Your task to perform on an android device: When is my next meeting? Image 0: 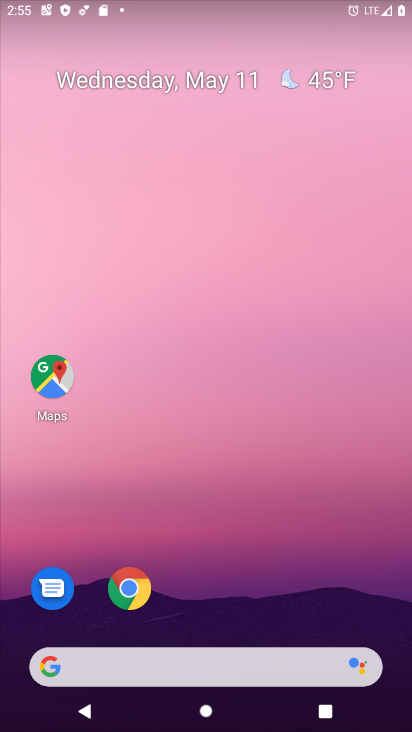
Step 0: drag from (192, 637) to (191, 229)
Your task to perform on an android device: When is my next meeting? Image 1: 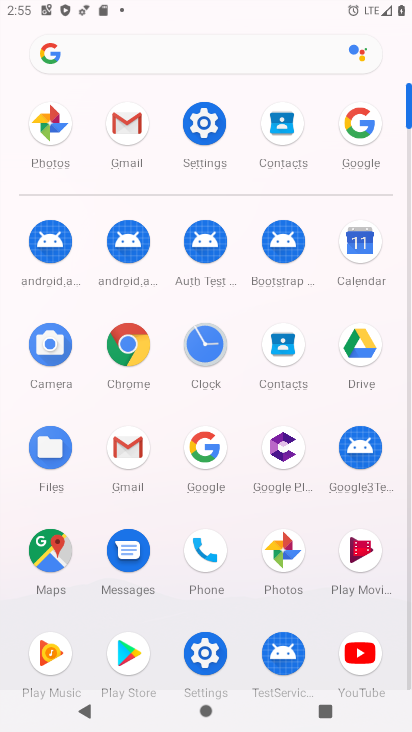
Step 1: click (350, 258)
Your task to perform on an android device: When is my next meeting? Image 2: 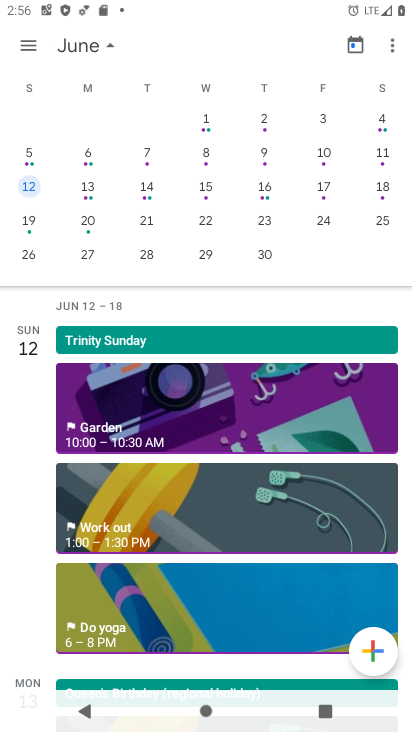
Step 2: drag from (223, 525) to (227, 330)
Your task to perform on an android device: When is my next meeting? Image 3: 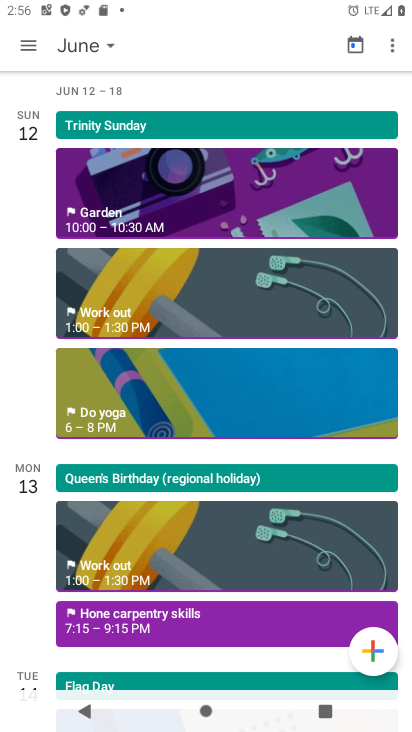
Step 3: drag from (213, 576) to (211, 382)
Your task to perform on an android device: When is my next meeting? Image 4: 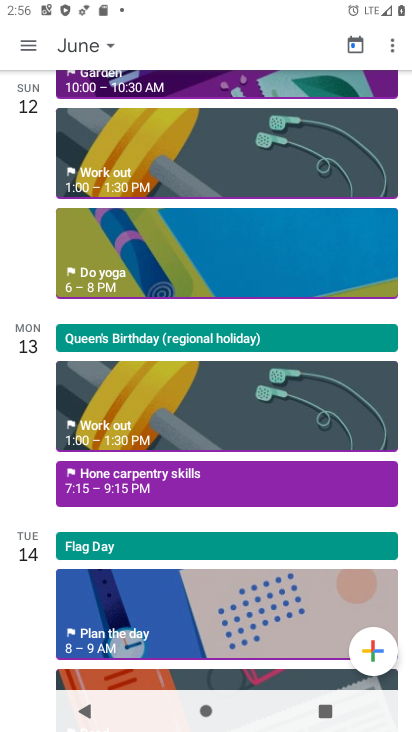
Step 4: drag from (192, 545) to (211, 304)
Your task to perform on an android device: When is my next meeting? Image 5: 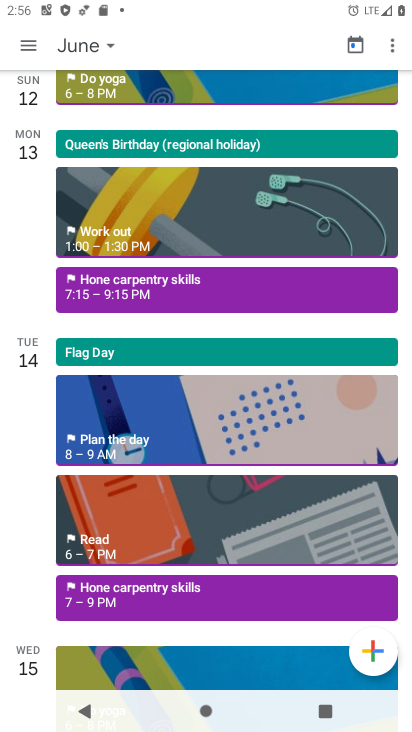
Step 5: drag from (197, 605) to (195, 342)
Your task to perform on an android device: When is my next meeting? Image 6: 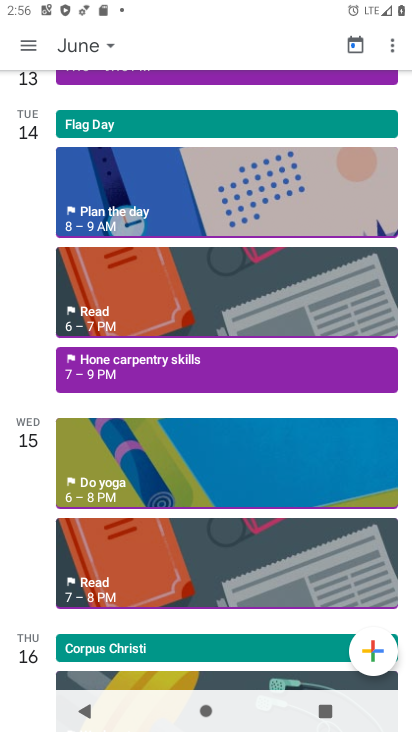
Step 6: drag from (194, 588) to (202, 367)
Your task to perform on an android device: When is my next meeting? Image 7: 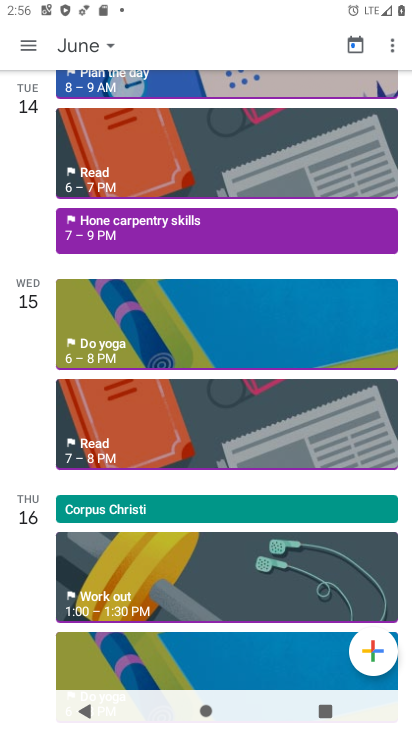
Step 7: drag from (207, 603) to (212, 340)
Your task to perform on an android device: When is my next meeting? Image 8: 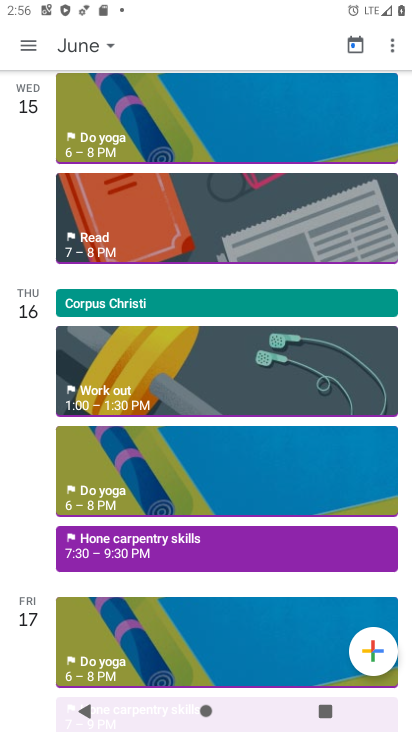
Step 8: drag from (200, 615) to (201, 336)
Your task to perform on an android device: When is my next meeting? Image 9: 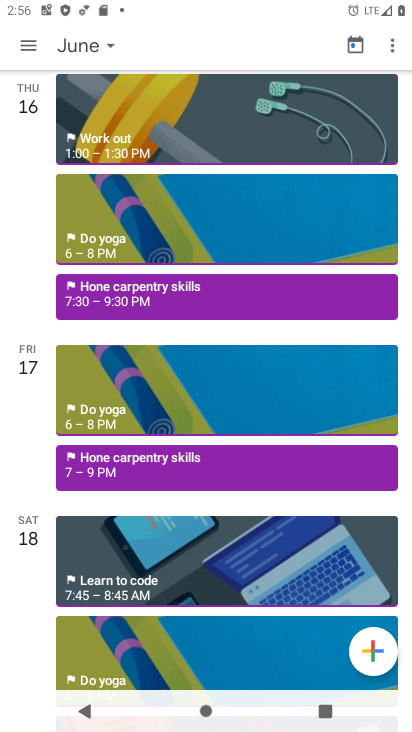
Step 9: drag from (188, 554) to (194, 309)
Your task to perform on an android device: When is my next meeting? Image 10: 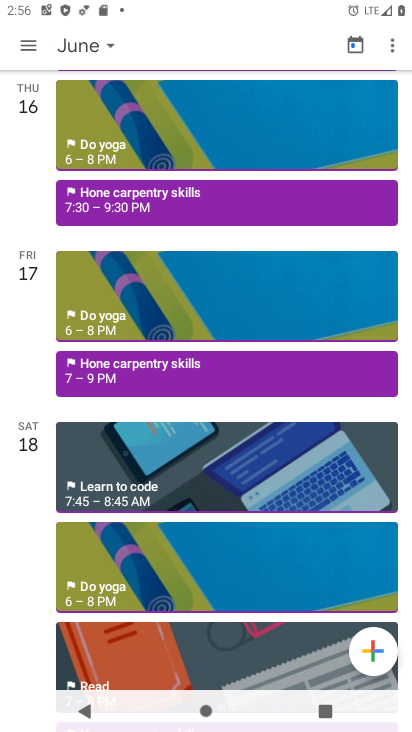
Step 10: drag from (182, 582) to (182, 330)
Your task to perform on an android device: When is my next meeting? Image 11: 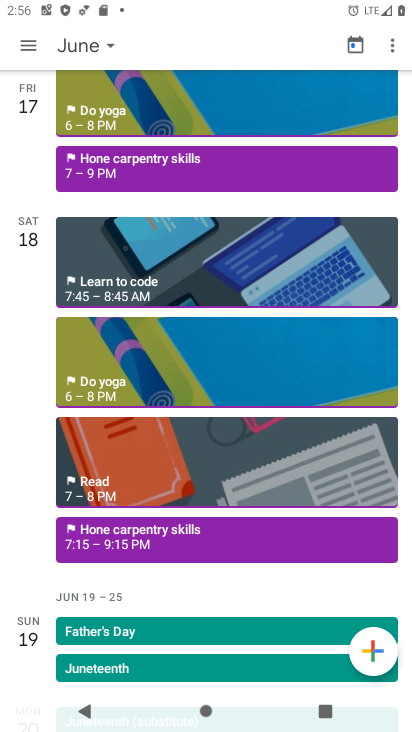
Step 11: drag from (191, 619) to (190, 332)
Your task to perform on an android device: When is my next meeting? Image 12: 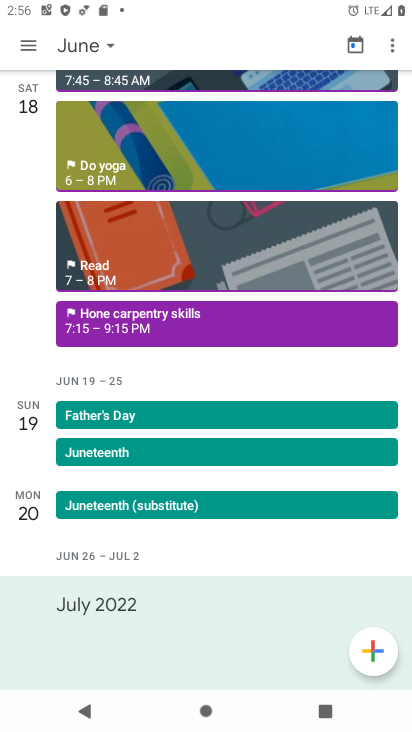
Step 12: drag from (189, 606) to (199, 269)
Your task to perform on an android device: When is my next meeting? Image 13: 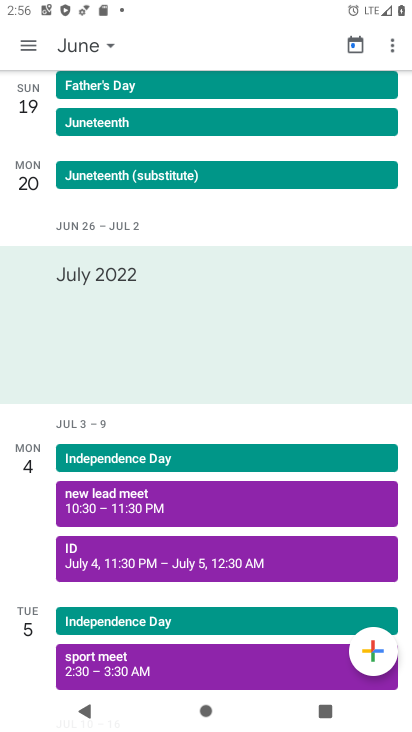
Step 13: drag from (218, 553) to (207, 302)
Your task to perform on an android device: When is my next meeting? Image 14: 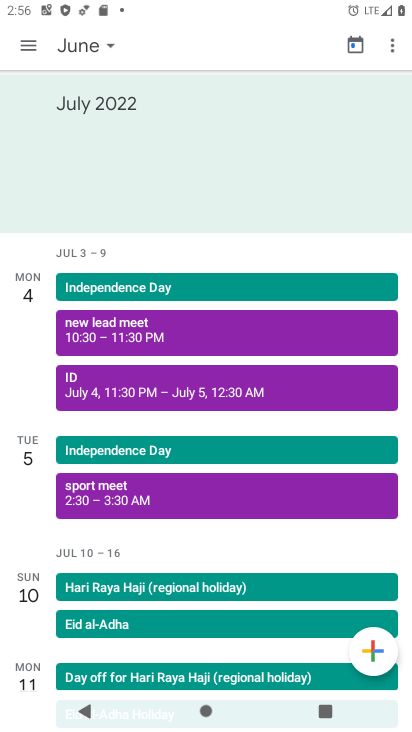
Step 14: click (147, 507)
Your task to perform on an android device: When is my next meeting? Image 15: 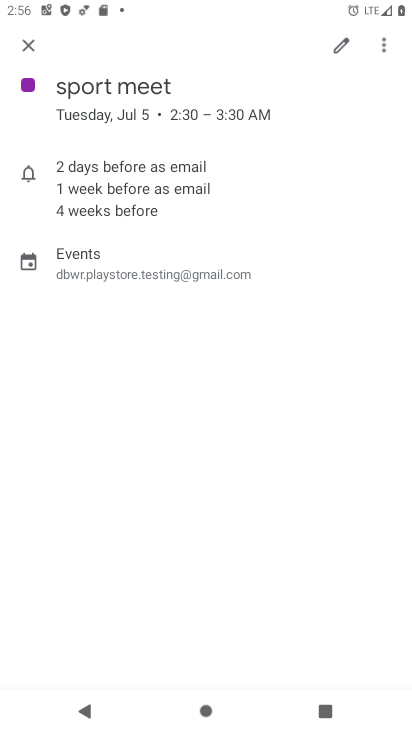
Step 15: task complete